Your task to perform on an android device: Open Youtube and go to "Your channel" Image 0: 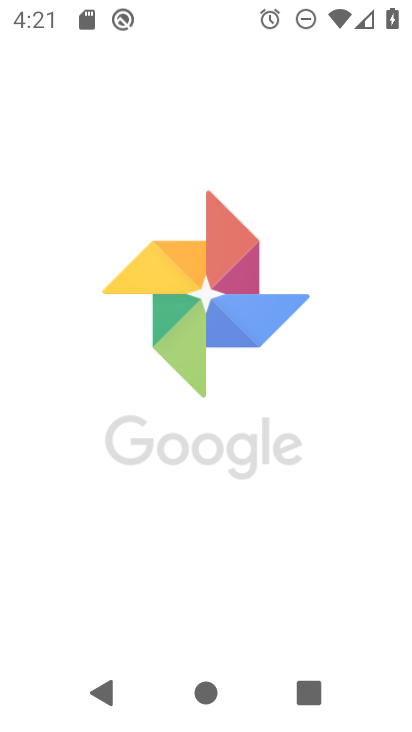
Step 0: drag from (309, 521) to (268, 92)
Your task to perform on an android device: Open Youtube and go to "Your channel" Image 1: 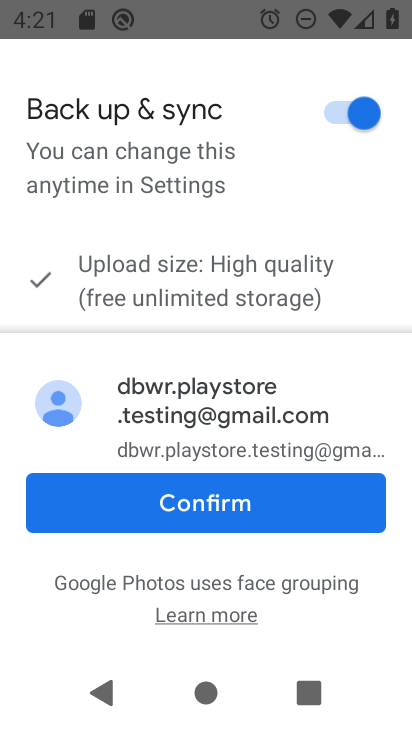
Step 1: press home button
Your task to perform on an android device: Open Youtube and go to "Your channel" Image 2: 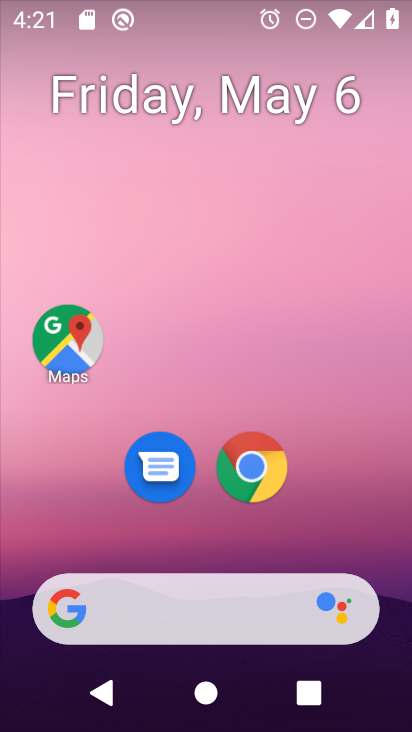
Step 2: drag from (329, 524) to (247, 120)
Your task to perform on an android device: Open Youtube and go to "Your channel" Image 3: 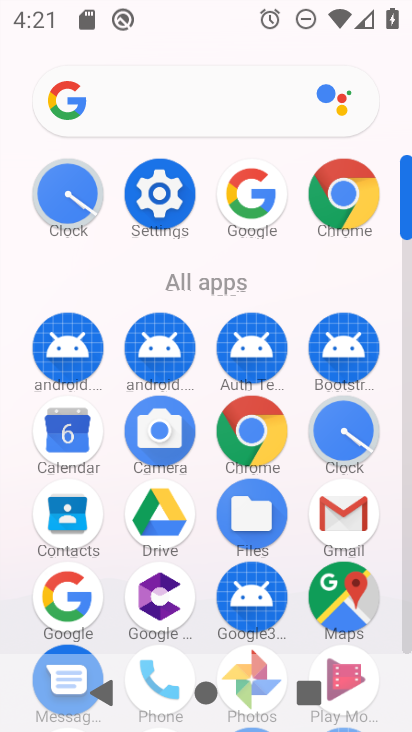
Step 3: drag from (198, 551) to (197, 187)
Your task to perform on an android device: Open Youtube and go to "Your channel" Image 4: 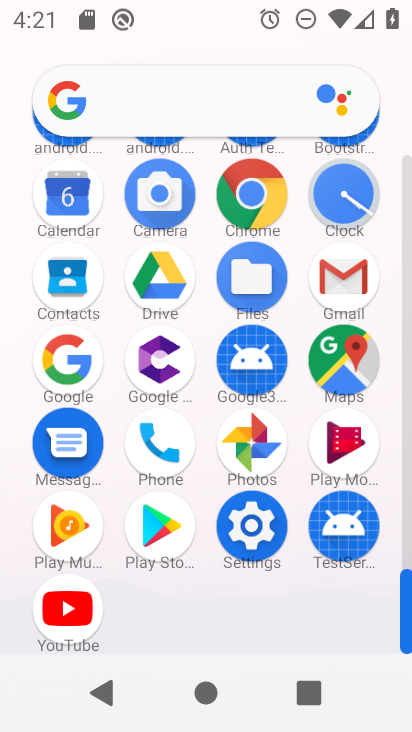
Step 4: click (63, 603)
Your task to perform on an android device: Open Youtube and go to "Your channel" Image 5: 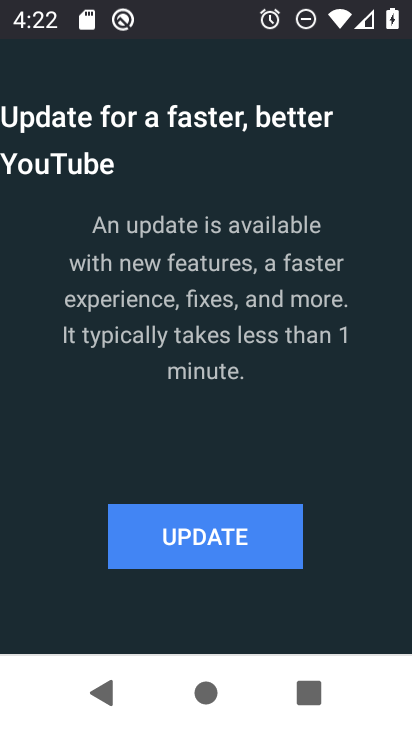
Step 5: click (186, 537)
Your task to perform on an android device: Open Youtube and go to "Your channel" Image 6: 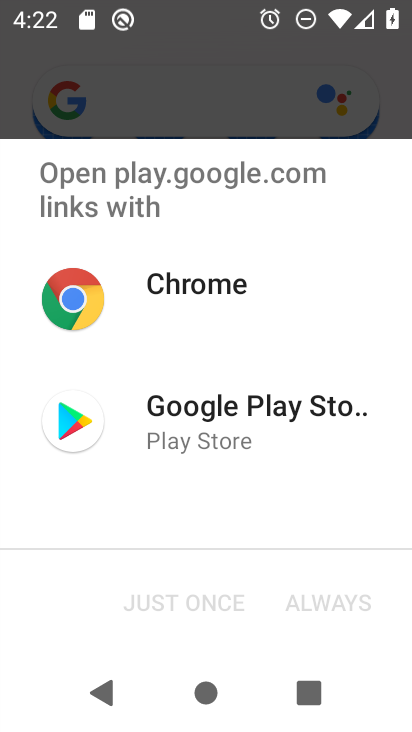
Step 6: click (192, 275)
Your task to perform on an android device: Open Youtube and go to "Your channel" Image 7: 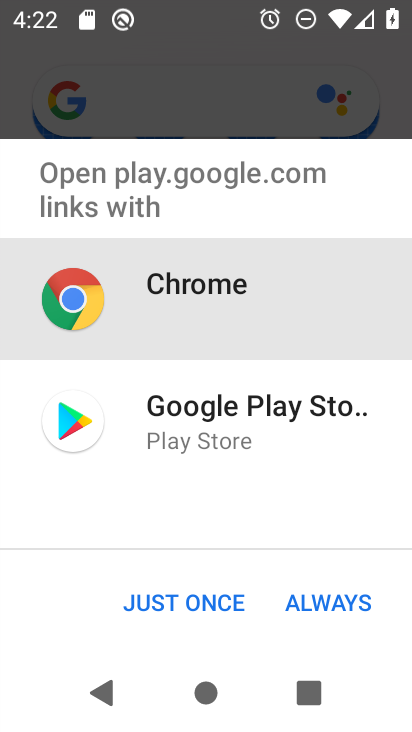
Step 7: click (220, 599)
Your task to perform on an android device: Open Youtube and go to "Your channel" Image 8: 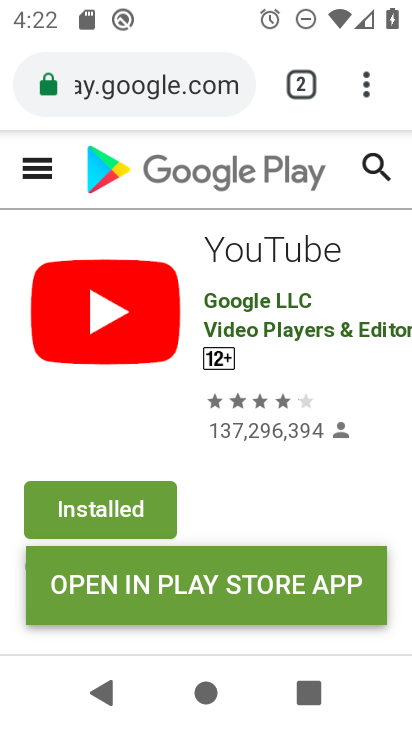
Step 8: click (39, 172)
Your task to perform on an android device: Open Youtube and go to "Your channel" Image 9: 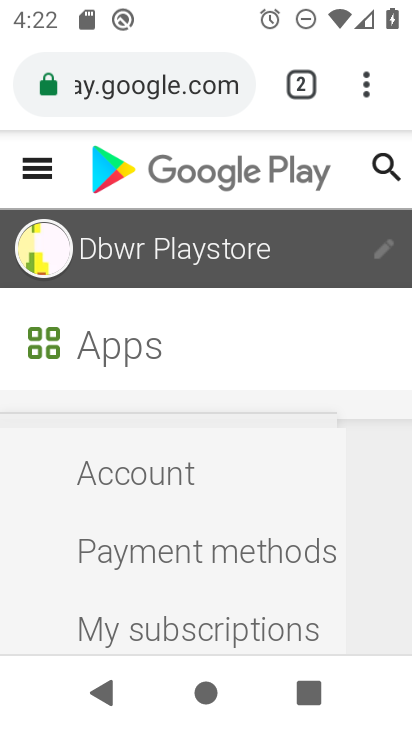
Step 9: click (150, 459)
Your task to perform on an android device: Open Youtube and go to "Your channel" Image 10: 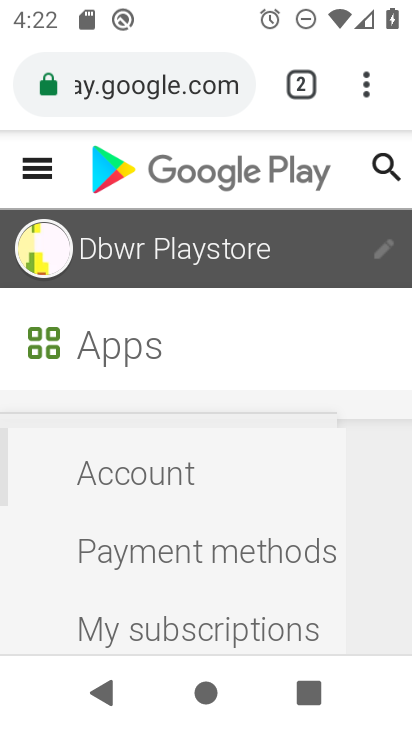
Step 10: click (171, 476)
Your task to perform on an android device: Open Youtube and go to "Your channel" Image 11: 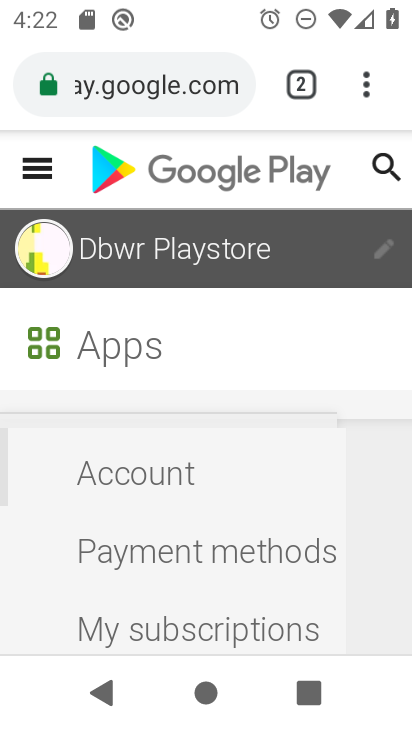
Step 11: drag from (161, 575) to (163, 319)
Your task to perform on an android device: Open Youtube and go to "Your channel" Image 12: 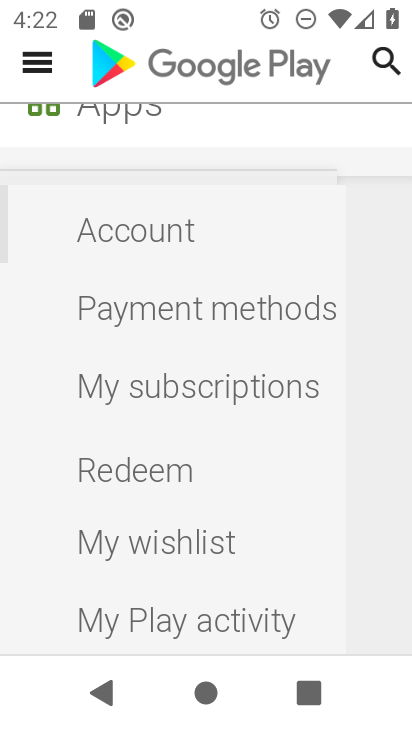
Step 12: click (147, 250)
Your task to perform on an android device: Open Youtube and go to "Your channel" Image 13: 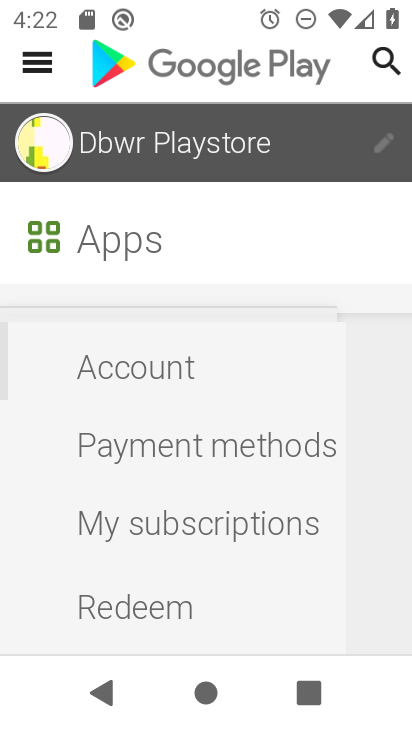
Step 13: click (162, 367)
Your task to perform on an android device: Open Youtube and go to "Your channel" Image 14: 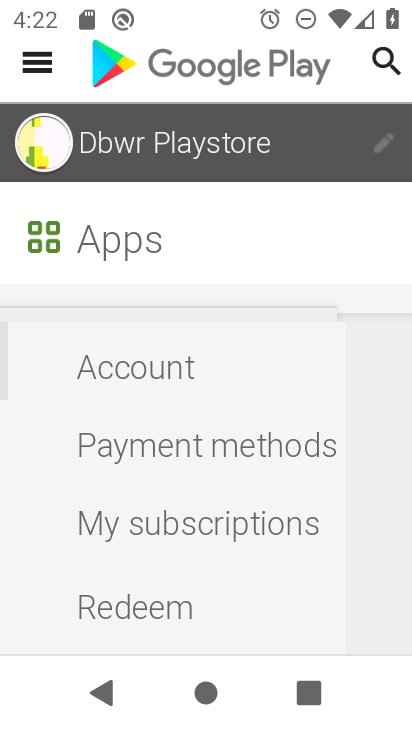
Step 14: click (158, 370)
Your task to perform on an android device: Open Youtube and go to "Your channel" Image 15: 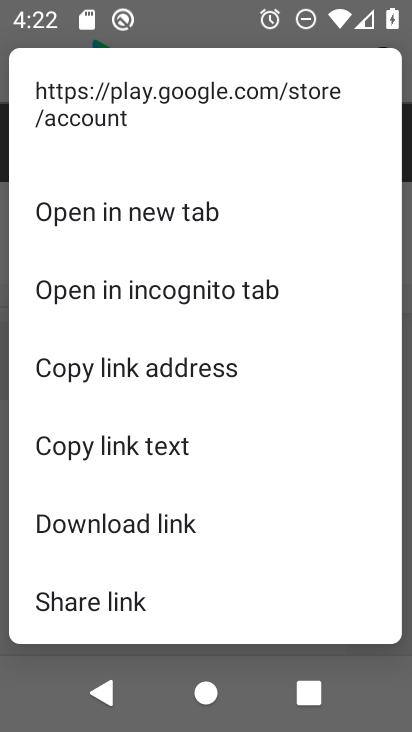
Step 15: click (21, 230)
Your task to perform on an android device: Open Youtube and go to "Your channel" Image 16: 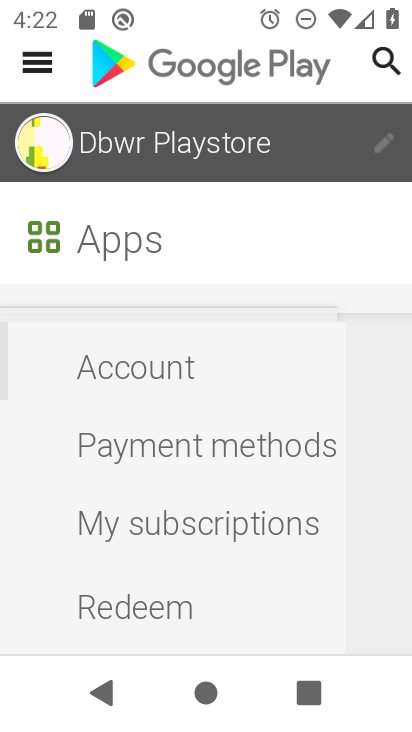
Step 16: click (137, 380)
Your task to perform on an android device: Open Youtube and go to "Your channel" Image 17: 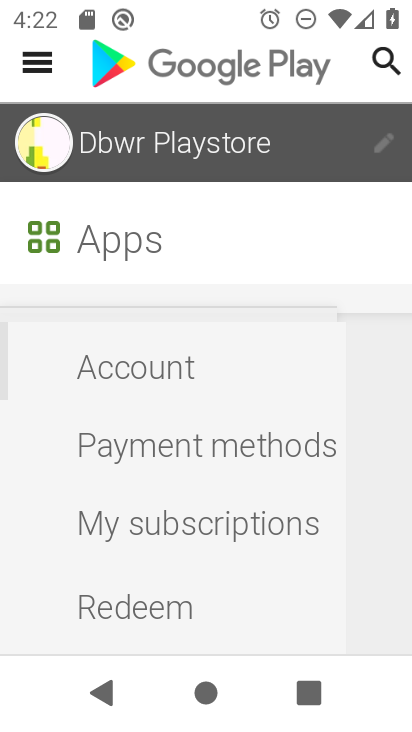
Step 17: click (153, 381)
Your task to perform on an android device: Open Youtube and go to "Your channel" Image 18: 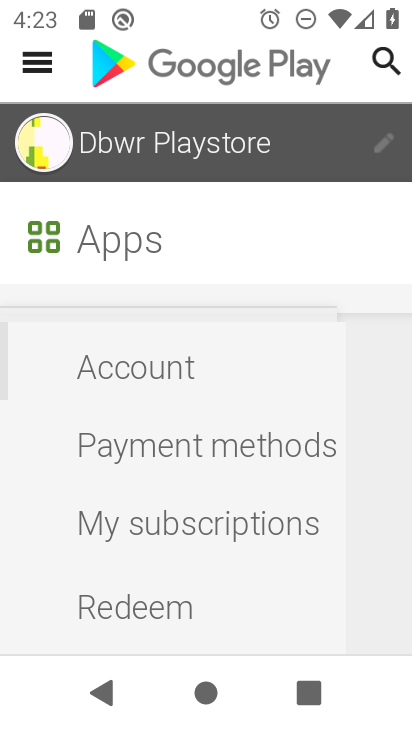
Step 18: task complete